Your task to perform on an android device: Search for pizza restaurants on Maps Image 0: 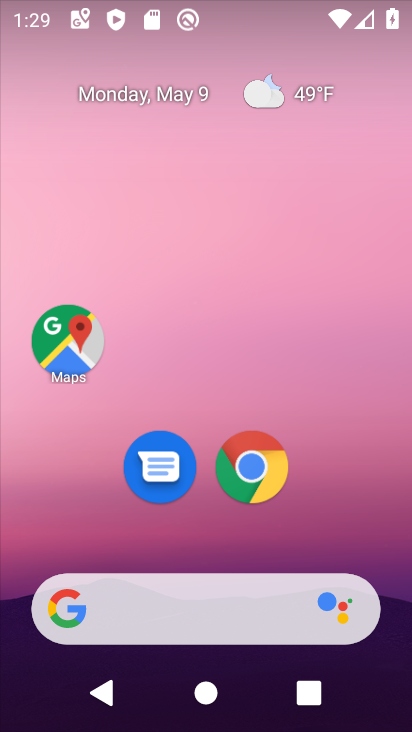
Step 0: press home button
Your task to perform on an android device: Search for pizza restaurants on Maps Image 1: 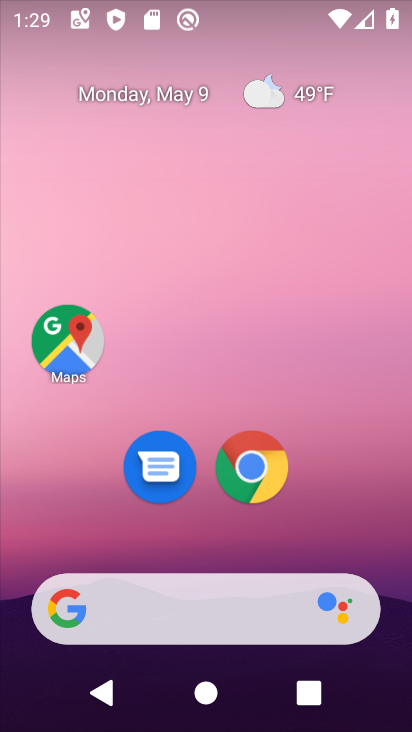
Step 1: drag from (370, 225) to (370, 135)
Your task to perform on an android device: Search for pizza restaurants on Maps Image 2: 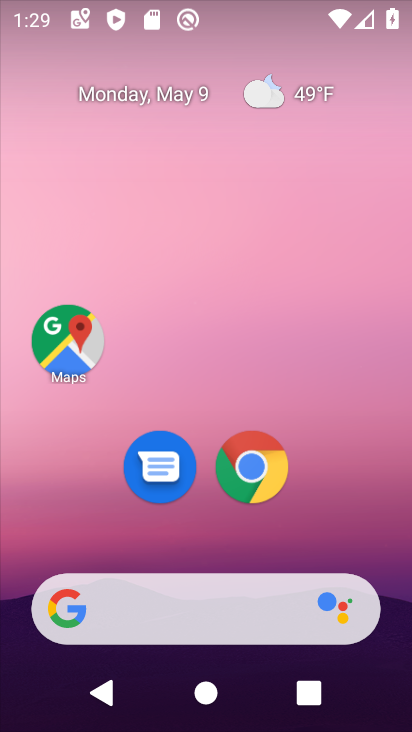
Step 2: drag from (331, 474) to (353, 81)
Your task to perform on an android device: Search for pizza restaurants on Maps Image 3: 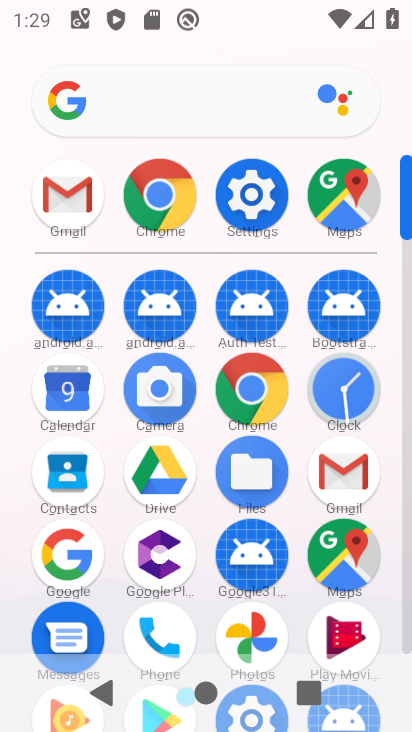
Step 3: click (343, 570)
Your task to perform on an android device: Search for pizza restaurants on Maps Image 4: 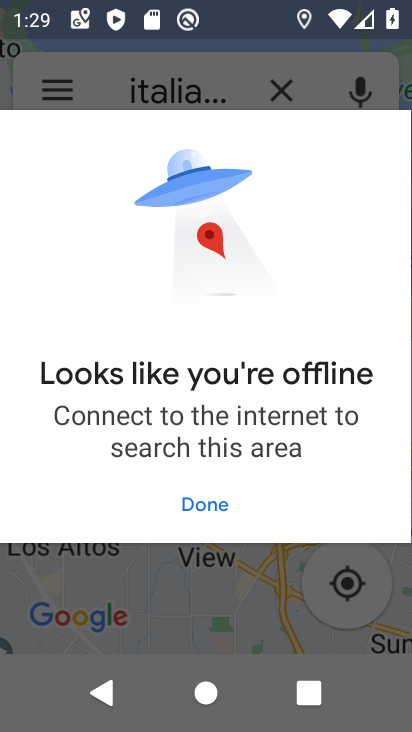
Step 4: click (210, 511)
Your task to perform on an android device: Search for pizza restaurants on Maps Image 5: 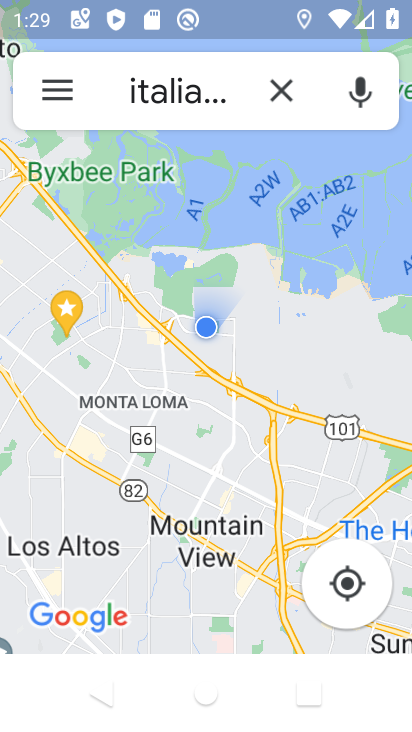
Step 5: click (290, 97)
Your task to perform on an android device: Search for pizza restaurants on Maps Image 6: 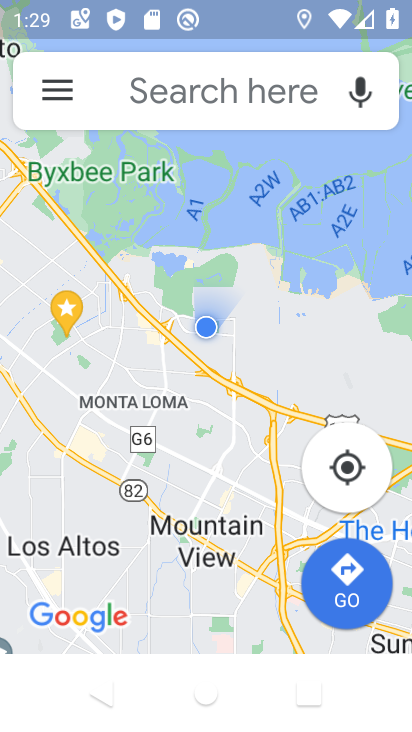
Step 6: click (217, 109)
Your task to perform on an android device: Search for pizza restaurants on Maps Image 7: 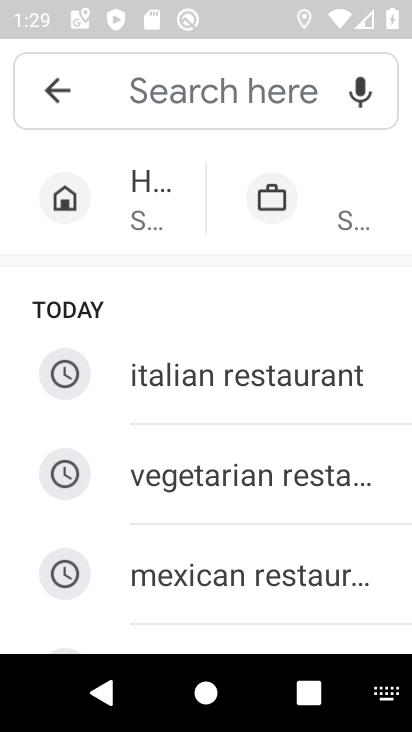
Step 7: type "pizza restaurants"
Your task to perform on an android device: Search for pizza restaurants on Maps Image 8: 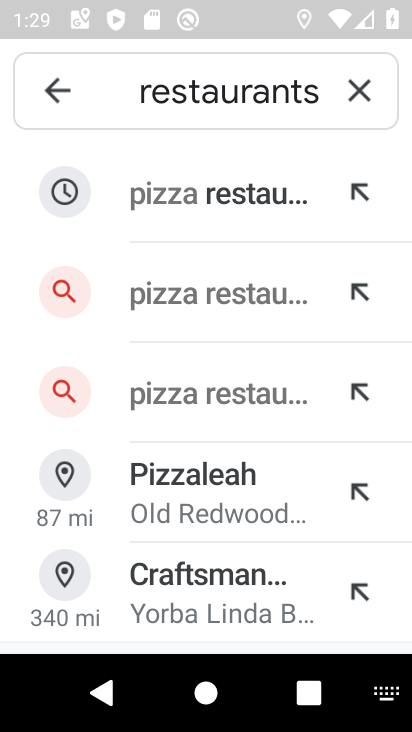
Step 8: click (205, 201)
Your task to perform on an android device: Search for pizza restaurants on Maps Image 9: 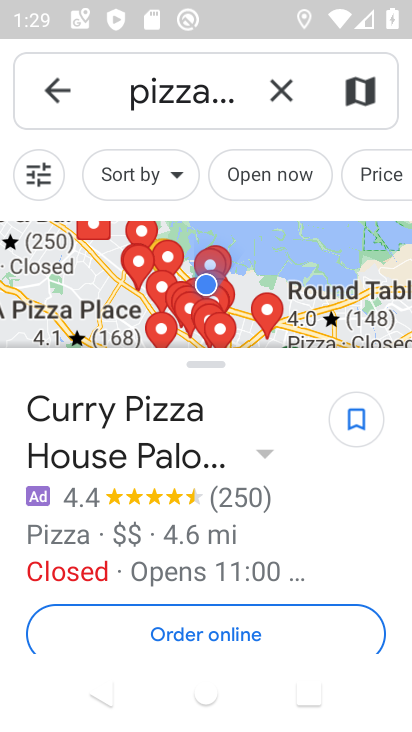
Step 9: task complete